Your task to perform on an android device: Search for seafood restaurants on Google Maps Image 0: 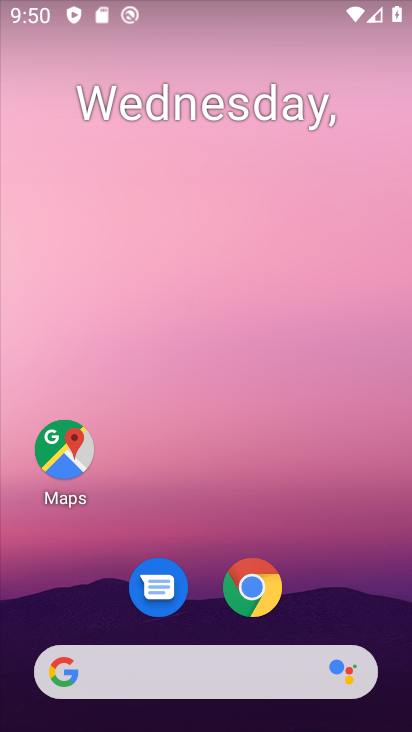
Step 0: press home button
Your task to perform on an android device: Search for seafood restaurants on Google Maps Image 1: 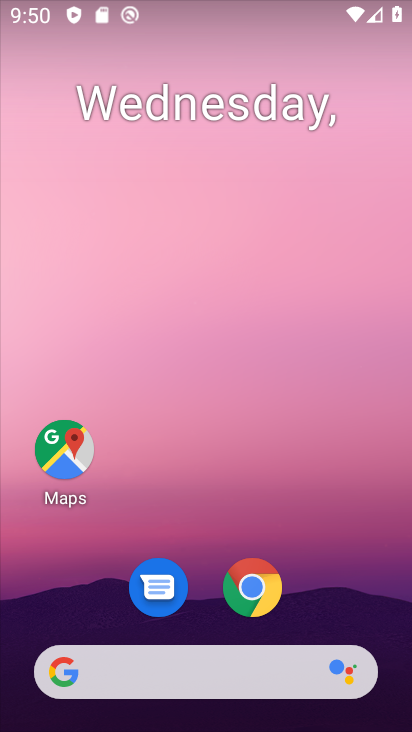
Step 1: click (67, 459)
Your task to perform on an android device: Search for seafood restaurants on Google Maps Image 2: 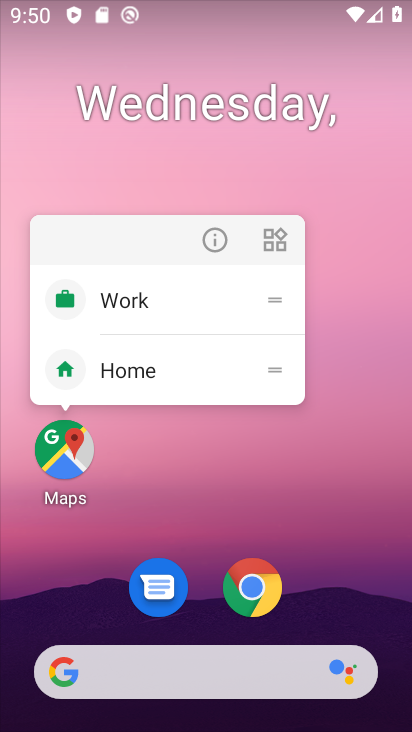
Step 2: click (71, 467)
Your task to perform on an android device: Search for seafood restaurants on Google Maps Image 3: 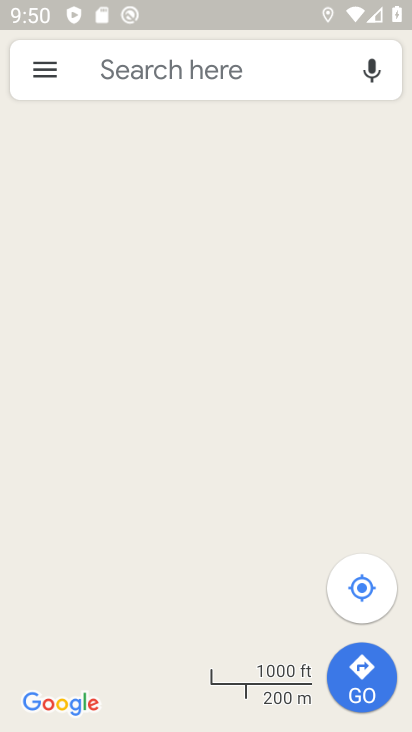
Step 3: click (198, 78)
Your task to perform on an android device: Search for seafood restaurants on Google Maps Image 4: 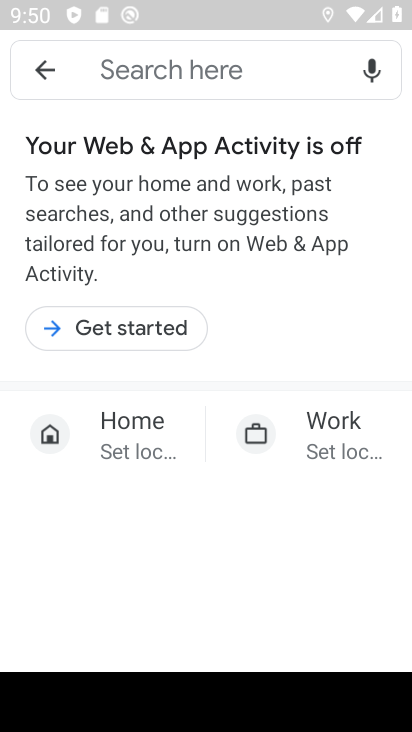
Step 4: click (85, 320)
Your task to perform on an android device: Search for seafood restaurants on Google Maps Image 5: 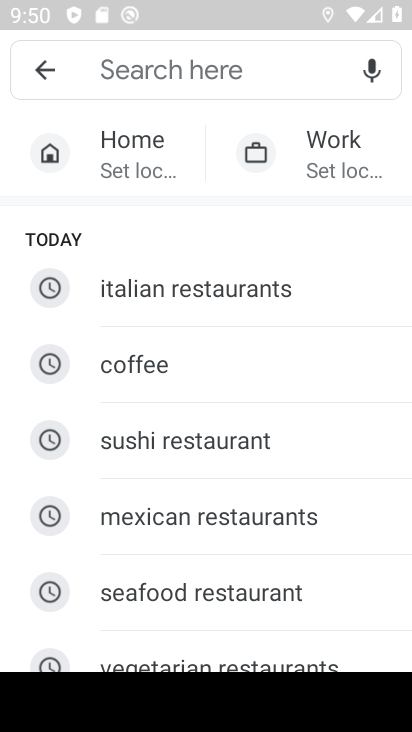
Step 5: click (184, 598)
Your task to perform on an android device: Search for seafood restaurants on Google Maps Image 6: 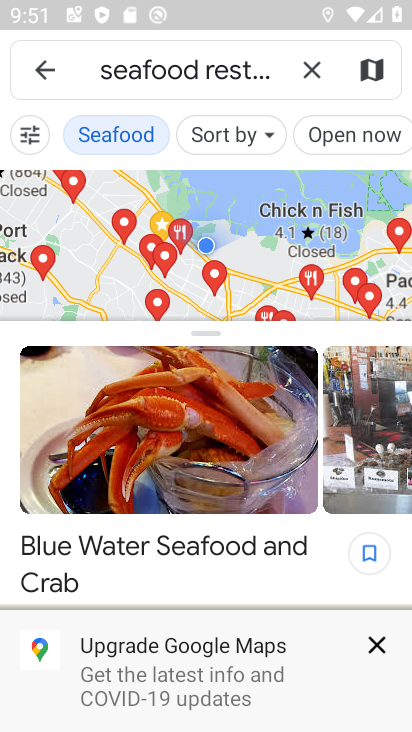
Step 6: task complete